Your task to perform on an android device: Install the eBay app Image 0: 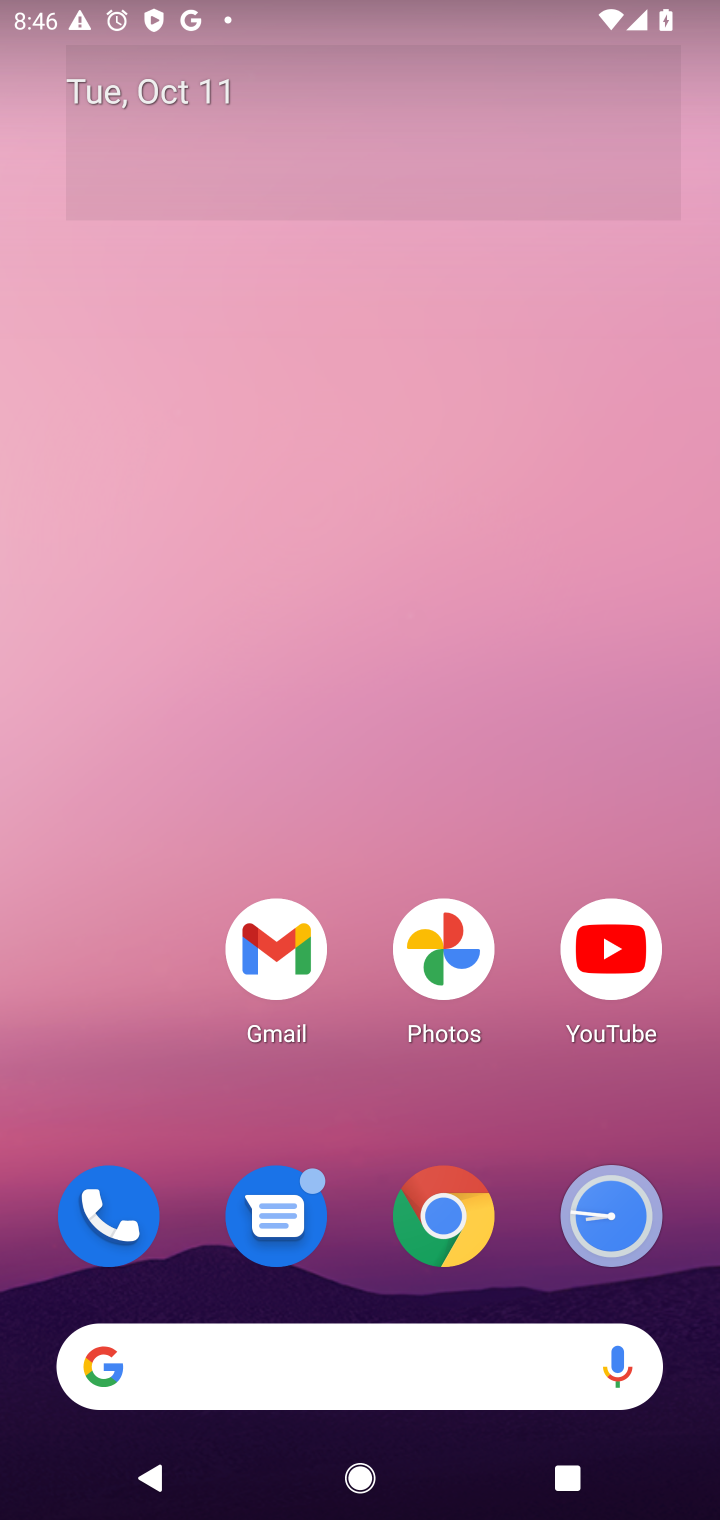
Step 0: drag from (401, 947) to (429, 564)
Your task to perform on an android device: Install the eBay app Image 1: 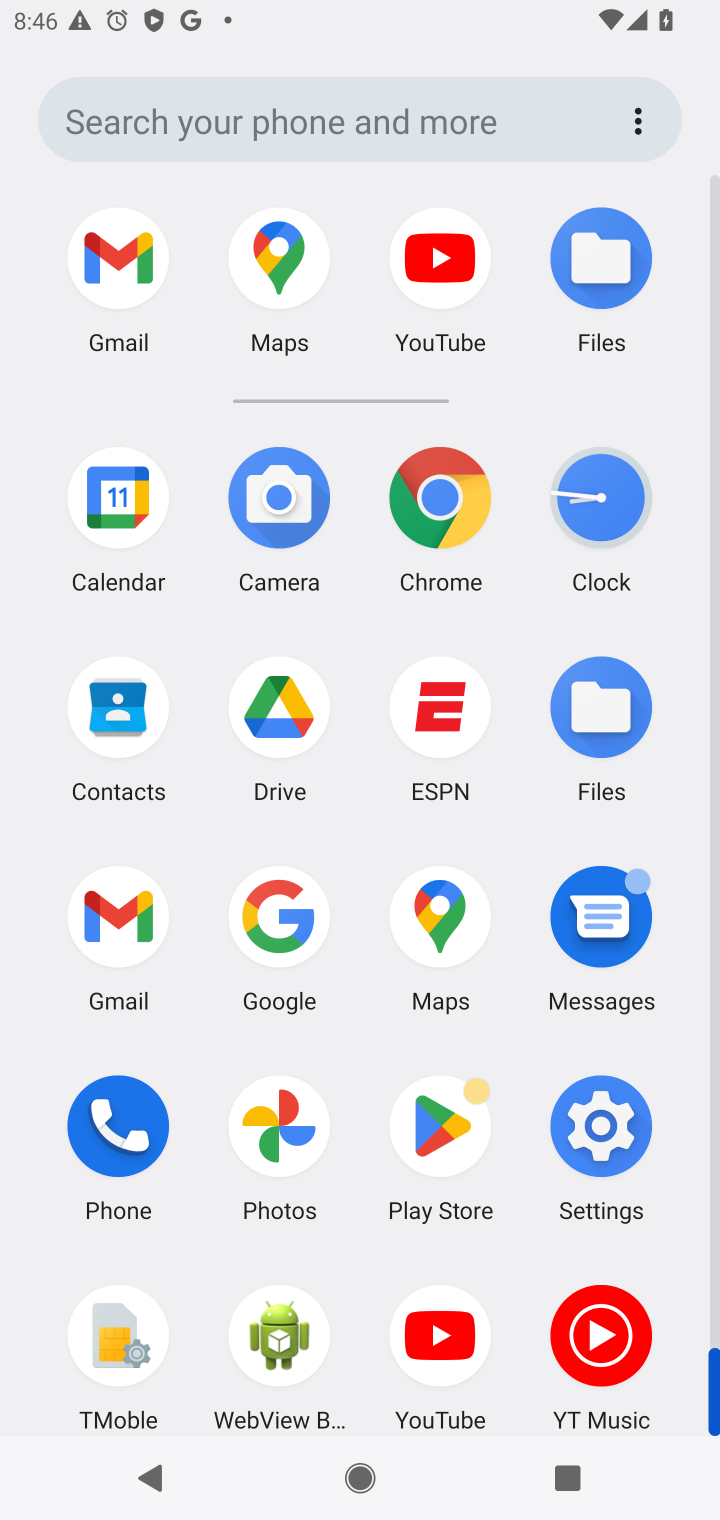
Step 1: click (423, 1117)
Your task to perform on an android device: Install the eBay app Image 2: 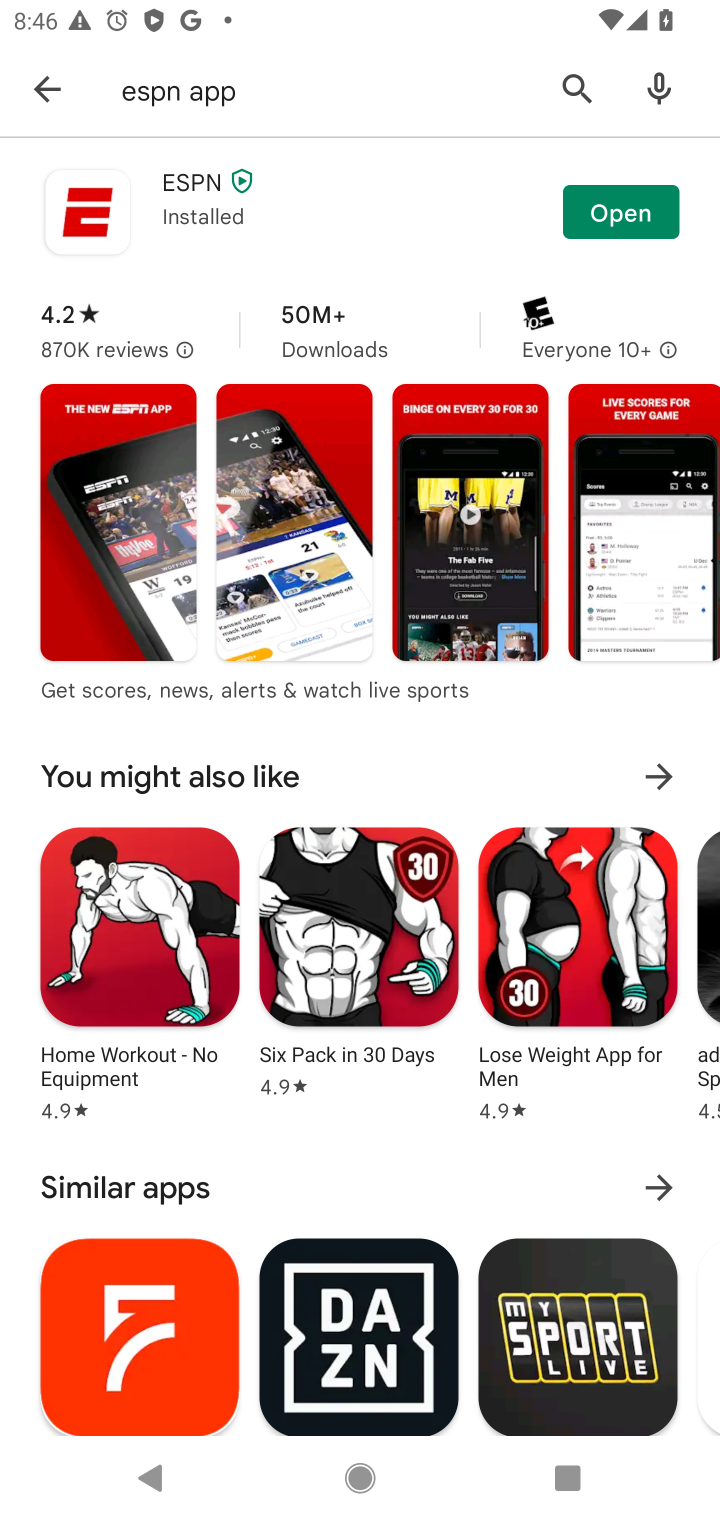
Step 2: click (566, 82)
Your task to perform on an android device: Install the eBay app Image 3: 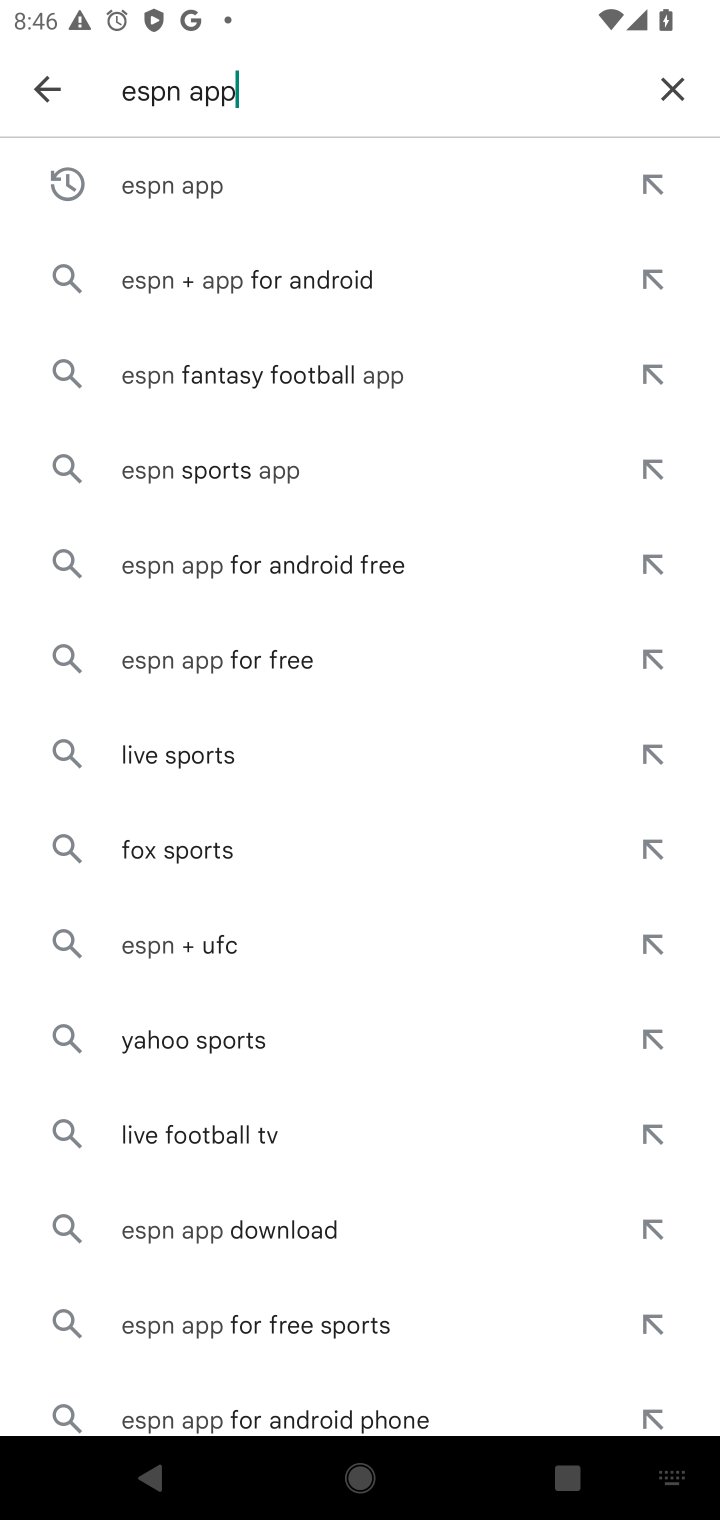
Step 3: click (675, 93)
Your task to perform on an android device: Install the eBay app Image 4: 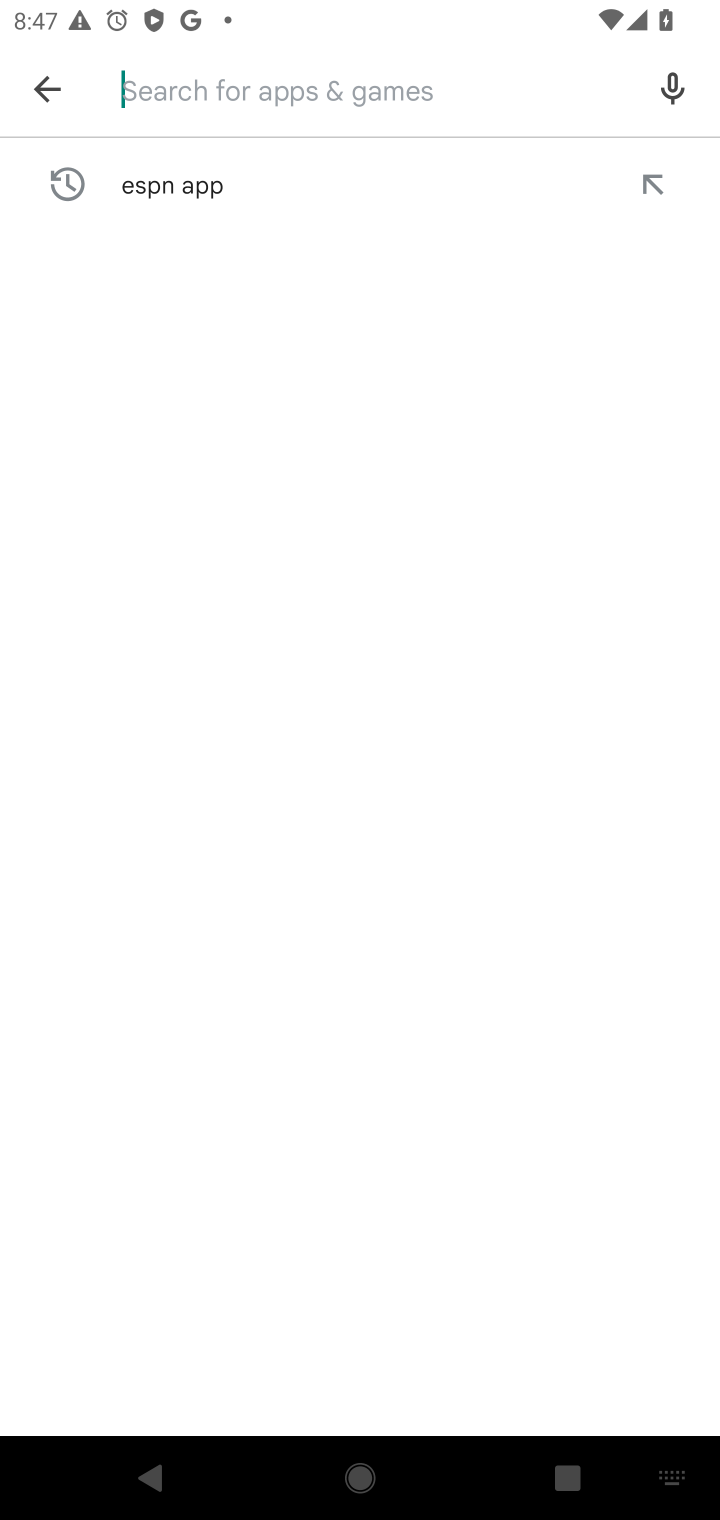
Step 4: type "ebay"
Your task to perform on an android device: Install the eBay app Image 5: 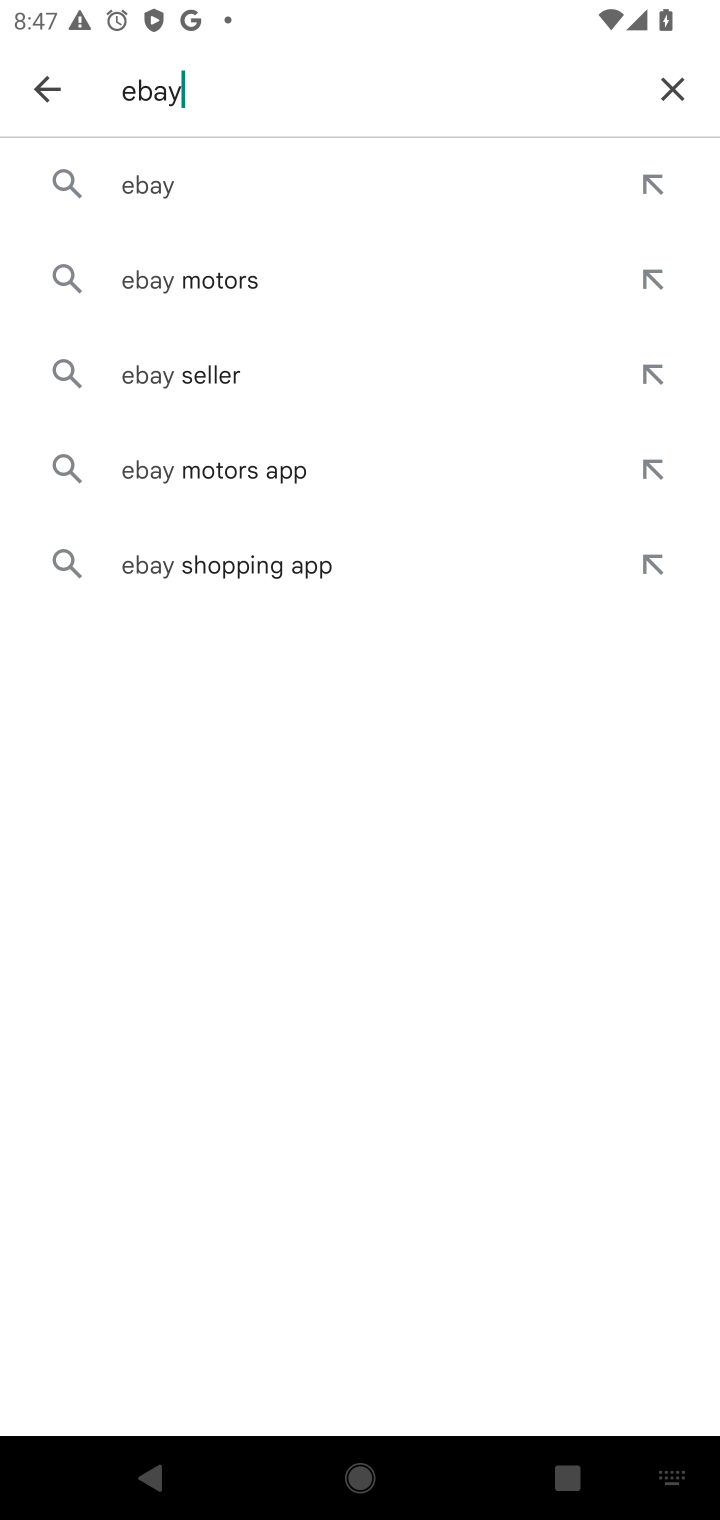
Step 5: click (202, 177)
Your task to perform on an android device: Install the eBay app Image 6: 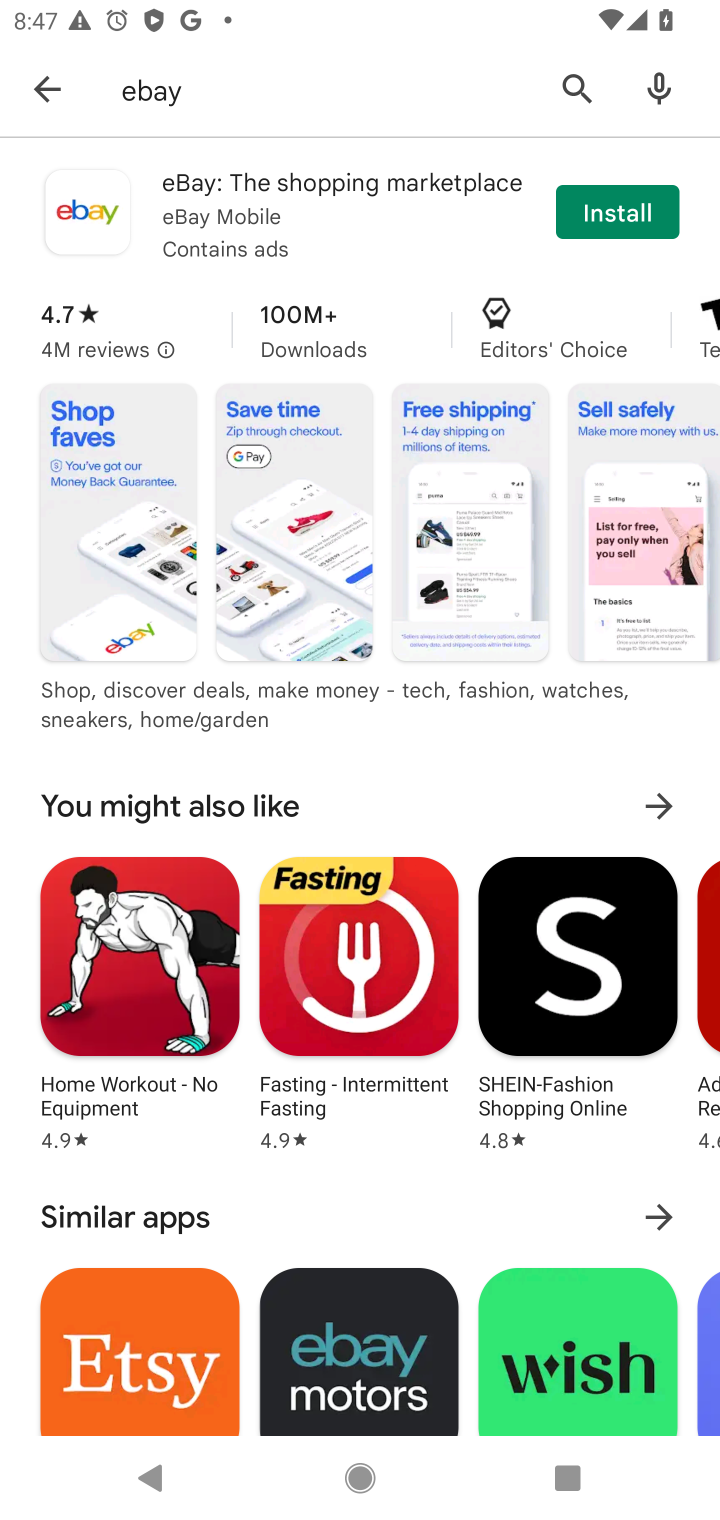
Step 6: click (655, 204)
Your task to perform on an android device: Install the eBay app Image 7: 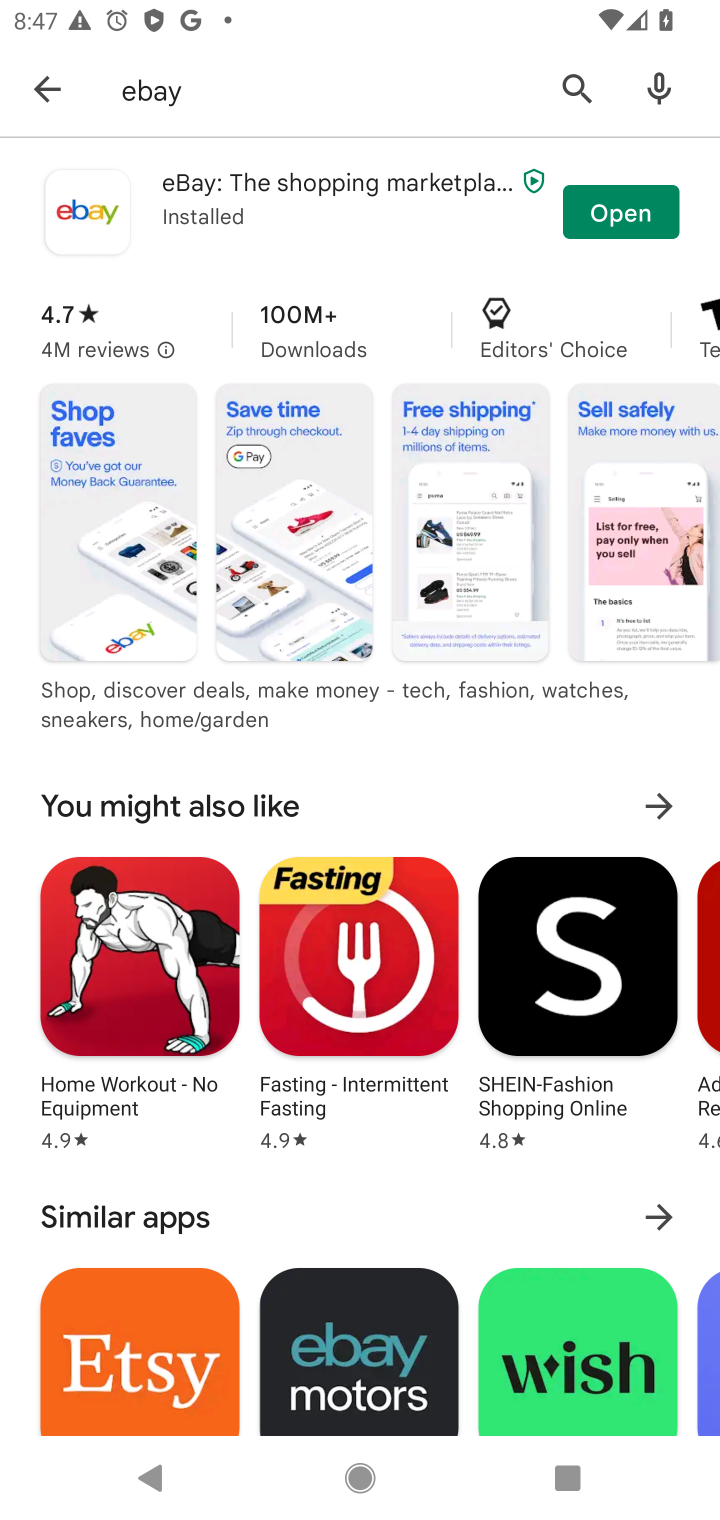
Step 7: task complete